Your task to perform on an android device: delete a single message in the gmail app Image 0: 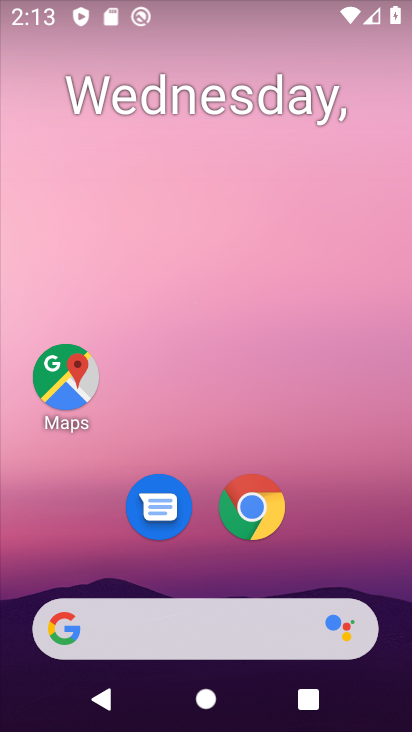
Step 0: drag from (330, 631) to (395, 46)
Your task to perform on an android device: delete a single message in the gmail app Image 1: 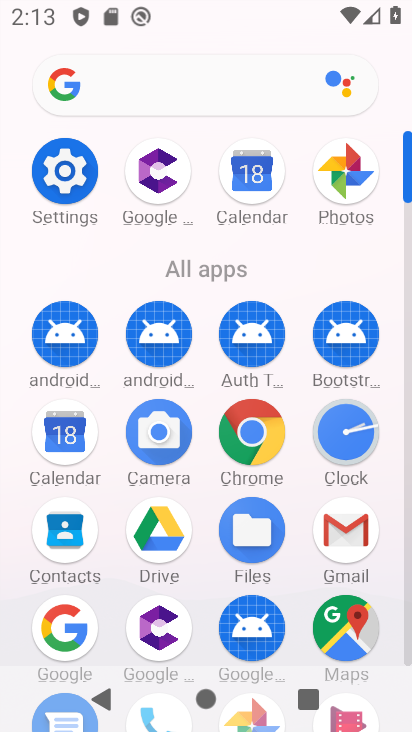
Step 1: click (339, 537)
Your task to perform on an android device: delete a single message in the gmail app Image 2: 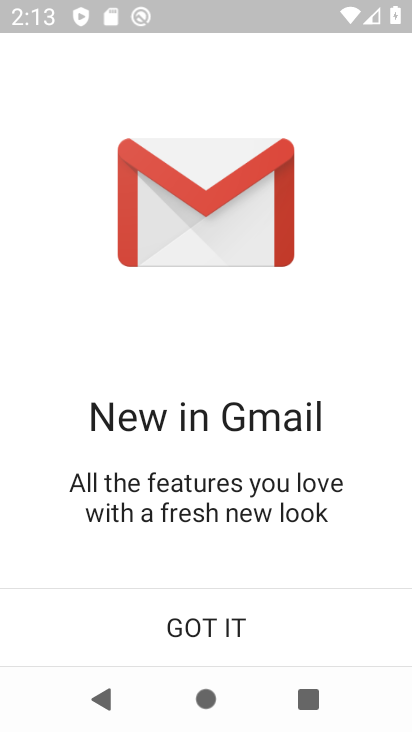
Step 2: click (240, 628)
Your task to perform on an android device: delete a single message in the gmail app Image 3: 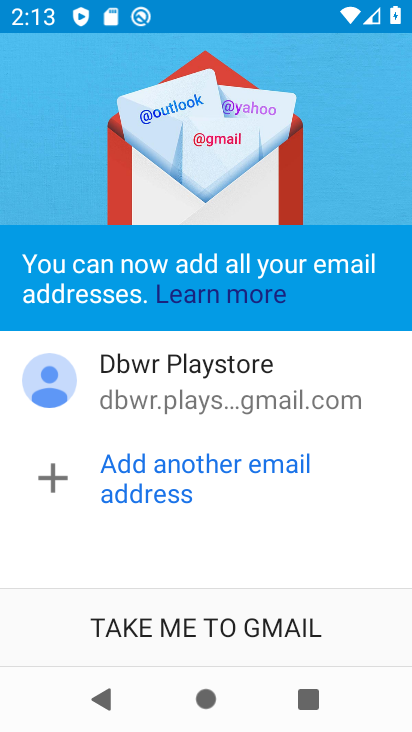
Step 3: click (265, 379)
Your task to perform on an android device: delete a single message in the gmail app Image 4: 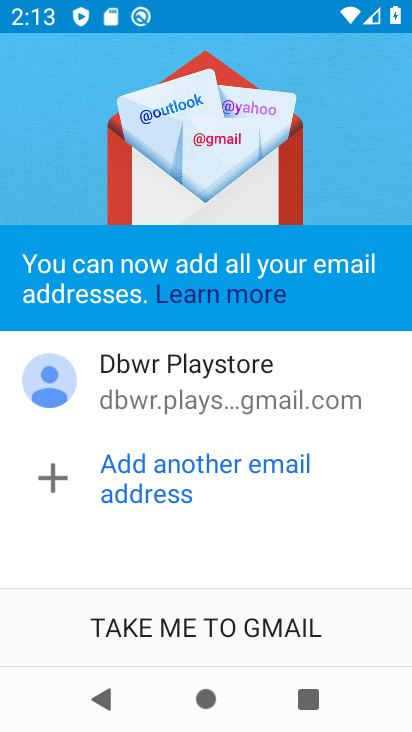
Step 4: task complete